Your task to perform on an android device: open app "LinkedIn" (install if not already installed) and enter user name: "dirt@inbox.com" and password: "receptionist" Image 0: 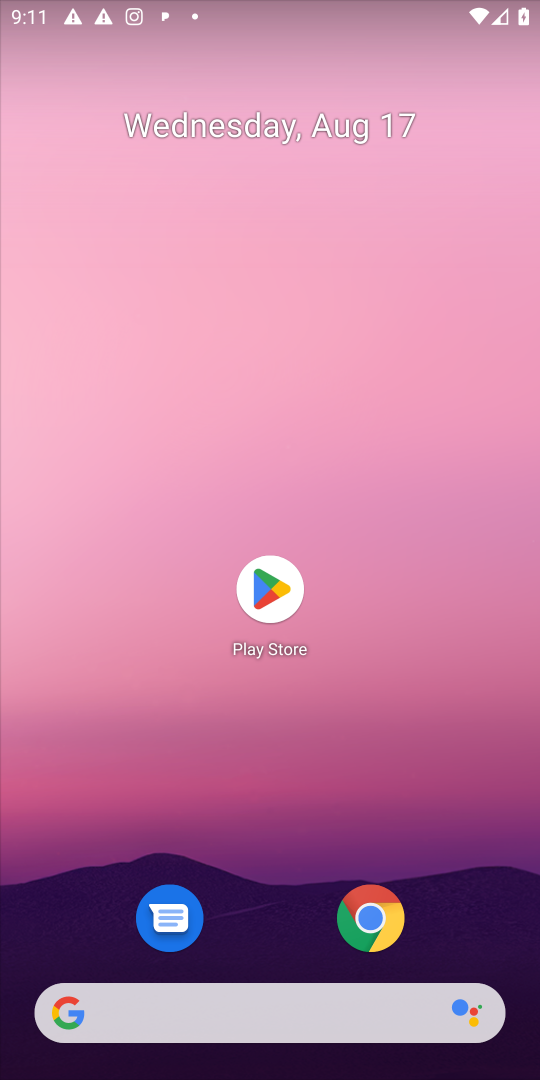
Step 0: click (259, 598)
Your task to perform on an android device: open app "LinkedIn" (install if not already installed) and enter user name: "dirt@inbox.com" and password: "receptionist" Image 1: 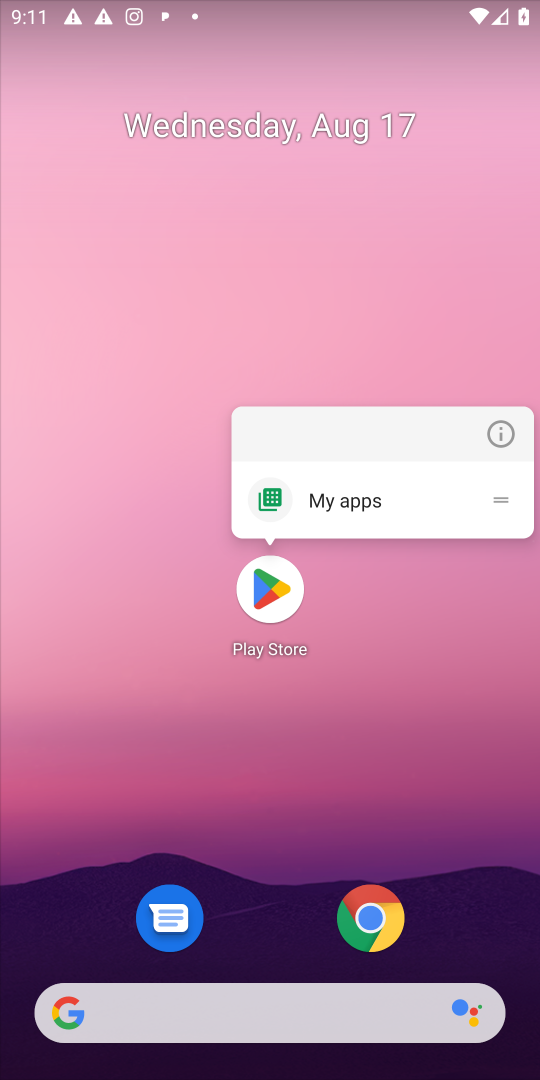
Step 1: click (276, 582)
Your task to perform on an android device: open app "LinkedIn" (install if not already installed) and enter user name: "dirt@inbox.com" and password: "receptionist" Image 2: 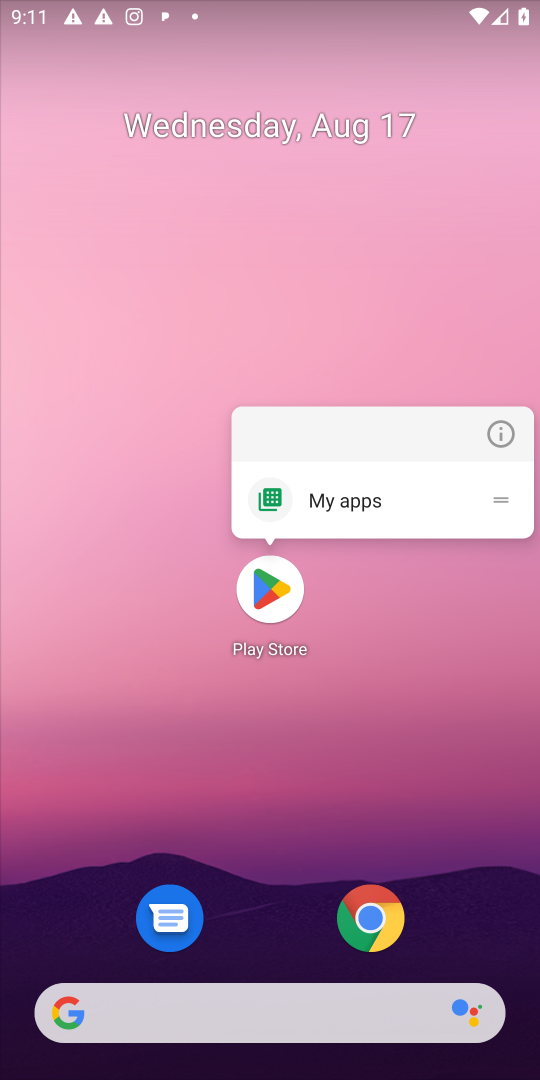
Step 2: click (276, 588)
Your task to perform on an android device: open app "LinkedIn" (install if not already installed) and enter user name: "dirt@inbox.com" and password: "receptionist" Image 3: 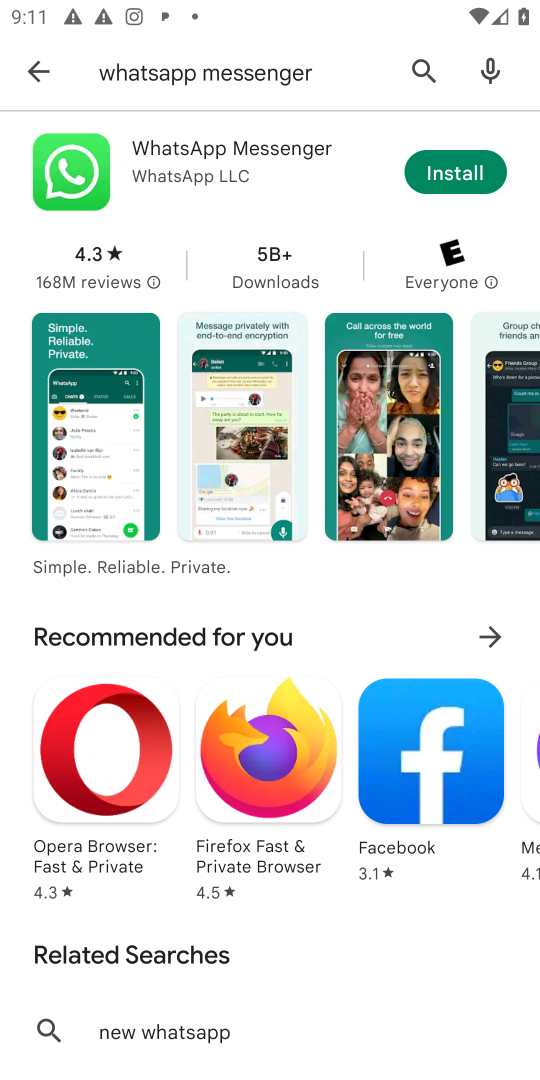
Step 3: click (425, 66)
Your task to perform on an android device: open app "LinkedIn" (install if not already installed) and enter user name: "dirt@inbox.com" and password: "receptionist" Image 4: 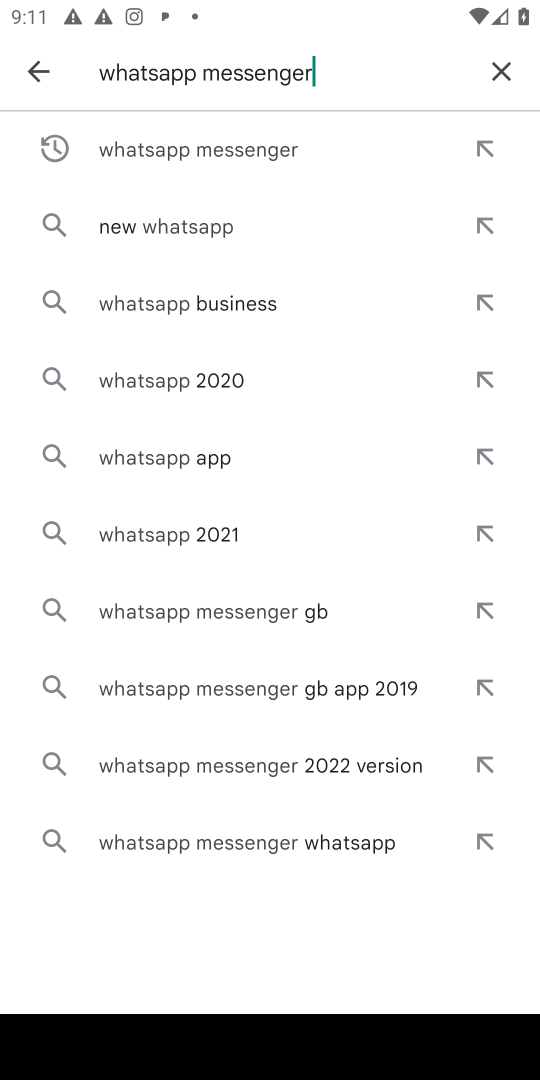
Step 4: click (506, 71)
Your task to perform on an android device: open app "LinkedIn" (install if not already installed) and enter user name: "dirt@inbox.com" and password: "receptionist" Image 5: 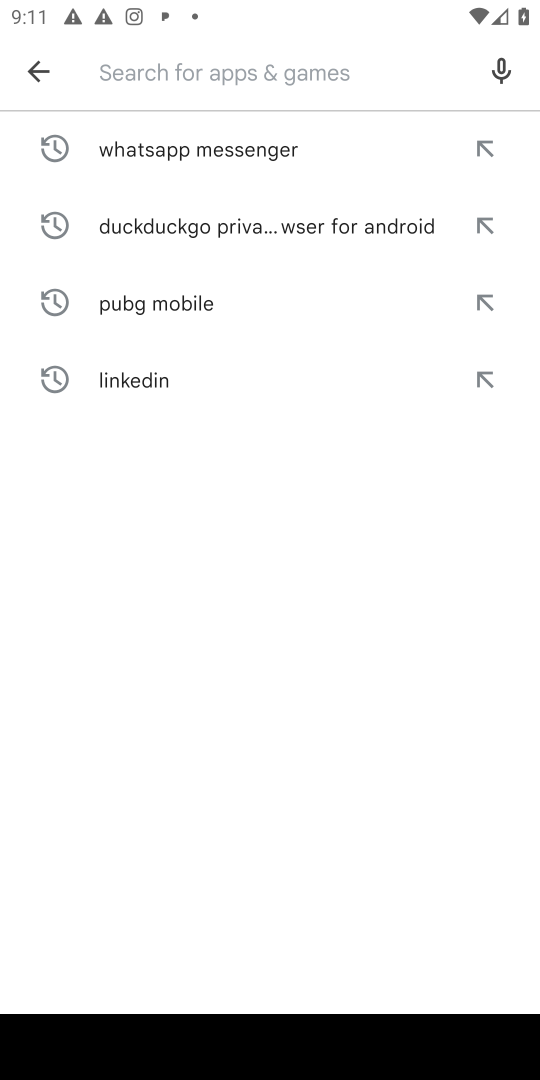
Step 5: type "LinkedIn"
Your task to perform on an android device: open app "LinkedIn" (install if not already installed) and enter user name: "dirt@inbox.com" and password: "receptionist" Image 6: 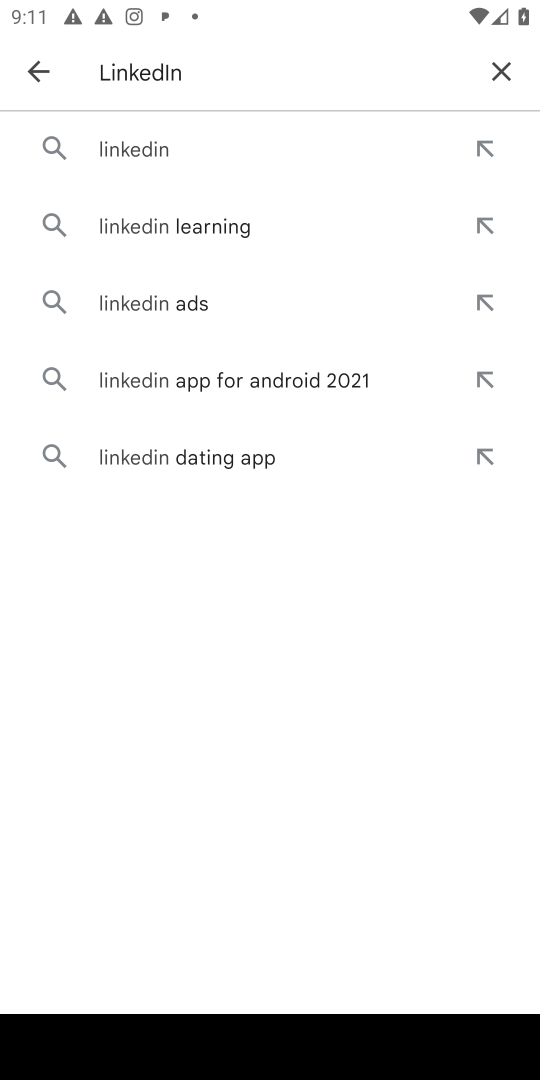
Step 6: click (160, 142)
Your task to perform on an android device: open app "LinkedIn" (install if not already installed) and enter user name: "dirt@inbox.com" and password: "receptionist" Image 7: 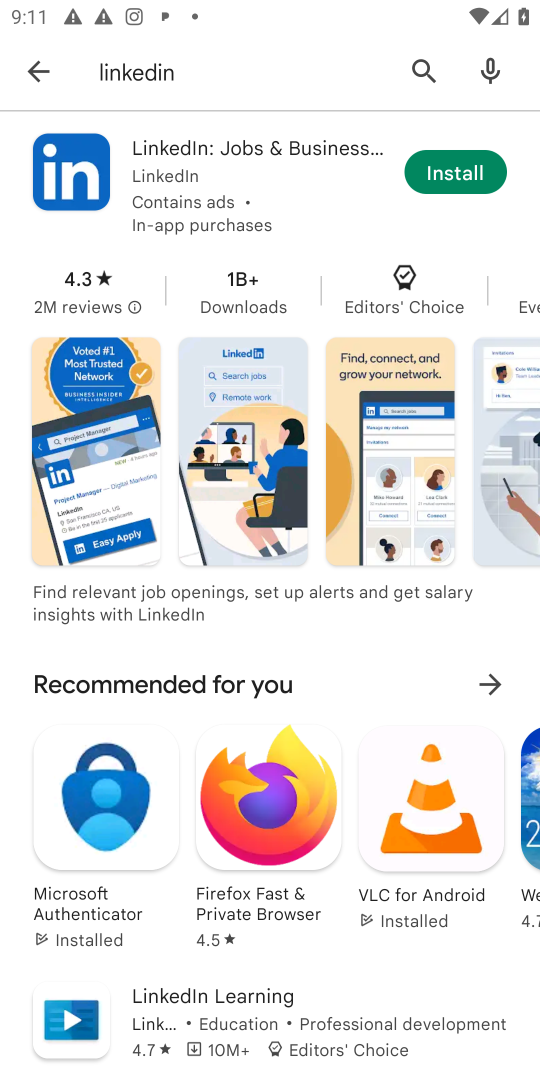
Step 7: click (443, 184)
Your task to perform on an android device: open app "LinkedIn" (install if not already installed) and enter user name: "dirt@inbox.com" and password: "receptionist" Image 8: 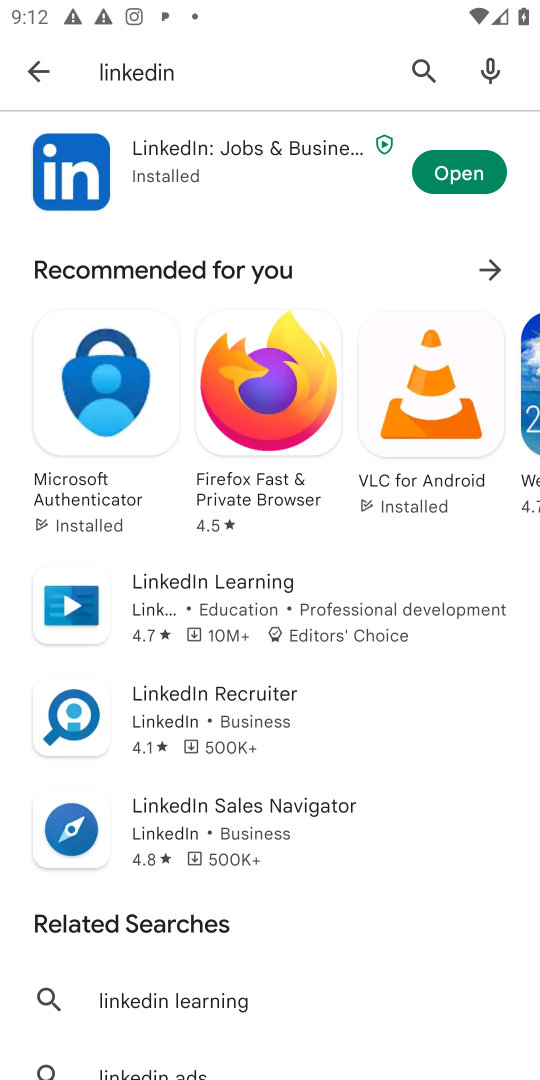
Step 8: click (455, 171)
Your task to perform on an android device: open app "LinkedIn" (install if not already installed) and enter user name: "dirt@inbox.com" and password: "receptionist" Image 9: 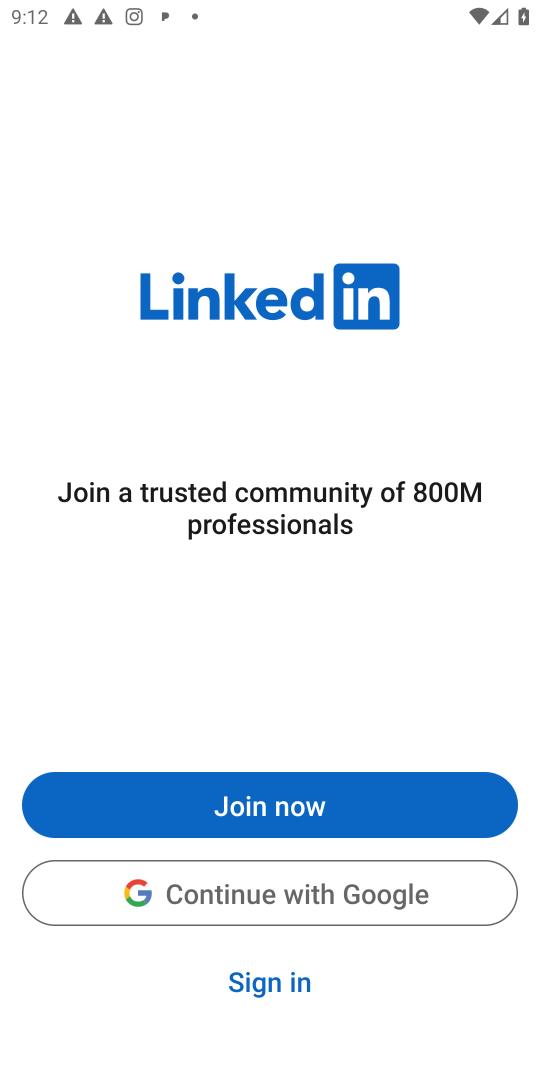
Step 9: click (285, 984)
Your task to perform on an android device: open app "LinkedIn" (install if not already installed) and enter user name: "dirt@inbox.com" and password: "receptionist" Image 10: 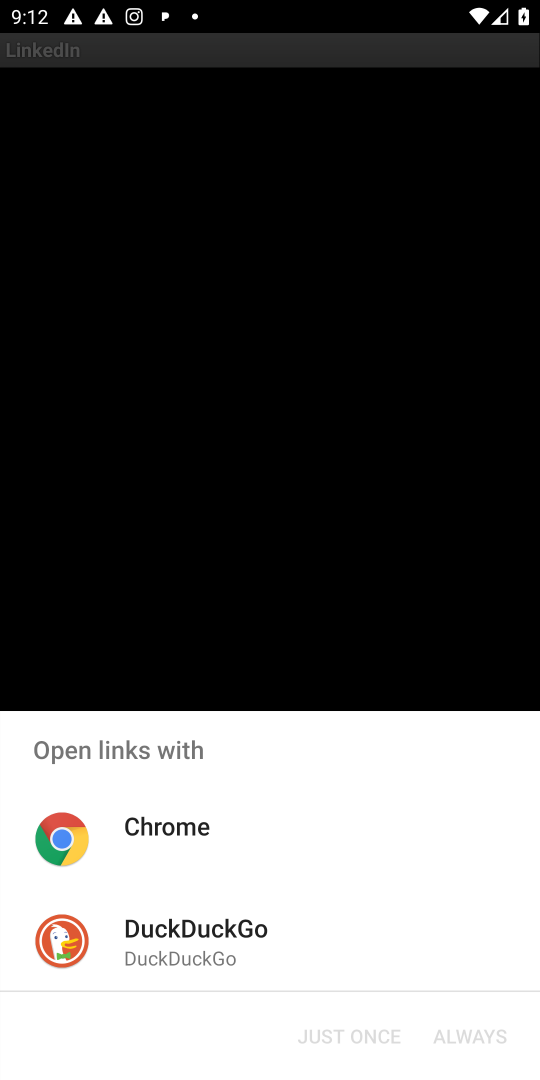
Step 10: click (142, 821)
Your task to perform on an android device: open app "LinkedIn" (install if not already installed) and enter user name: "dirt@inbox.com" and password: "receptionist" Image 11: 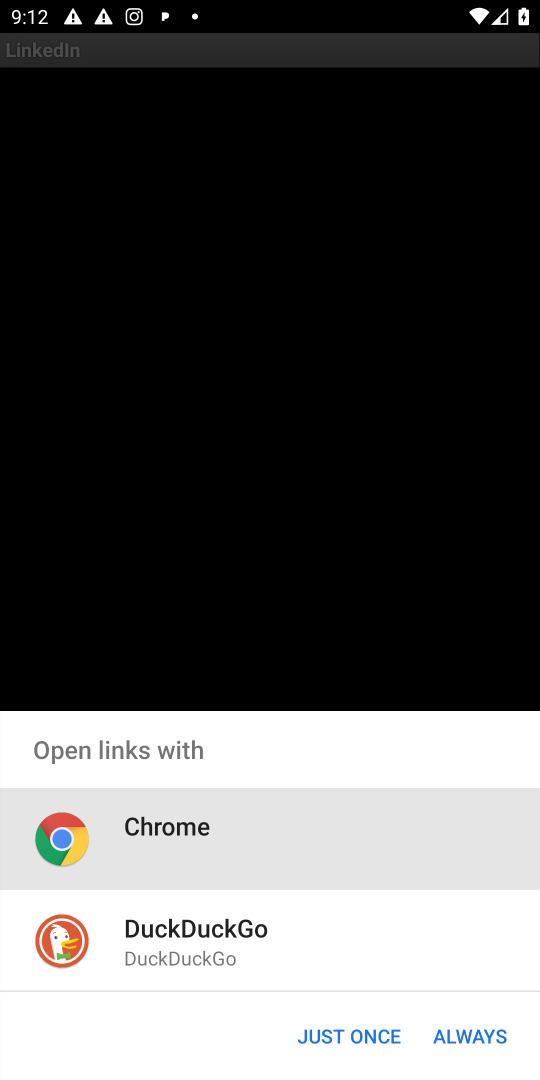
Step 11: click (445, 1035)
Your task to perform on an android device: open app "LinkedIn" (install if not already installed) and enter user name: "dirt@inbox.com" and password: "receptionist" Image 12: 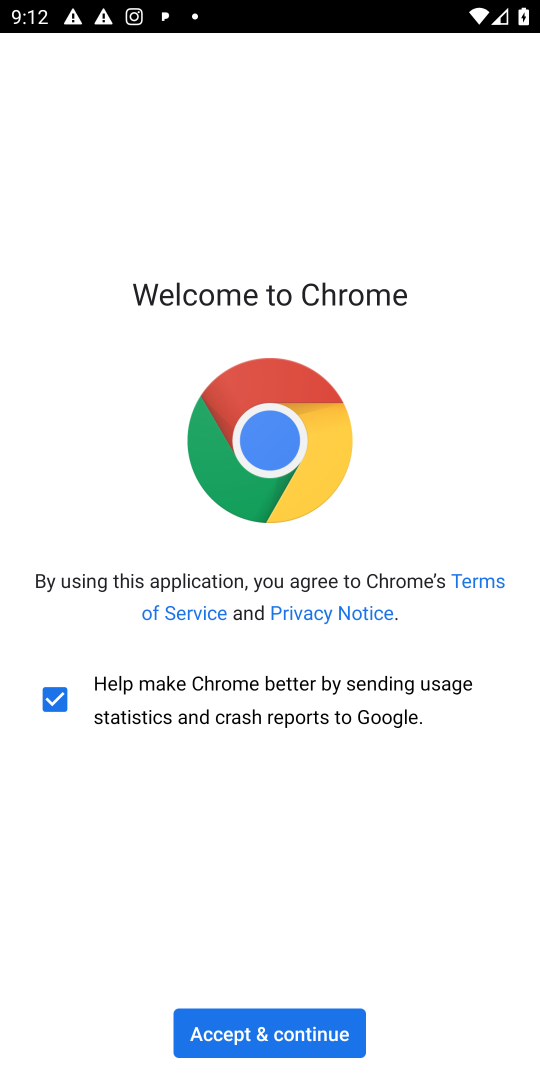
Step 12: press home button
Your task to perform on an android device: open app "LinkedIn" (install if not already installed) and enter user name: "dirt@inbox.com" and password: "receptionist" Image 13: 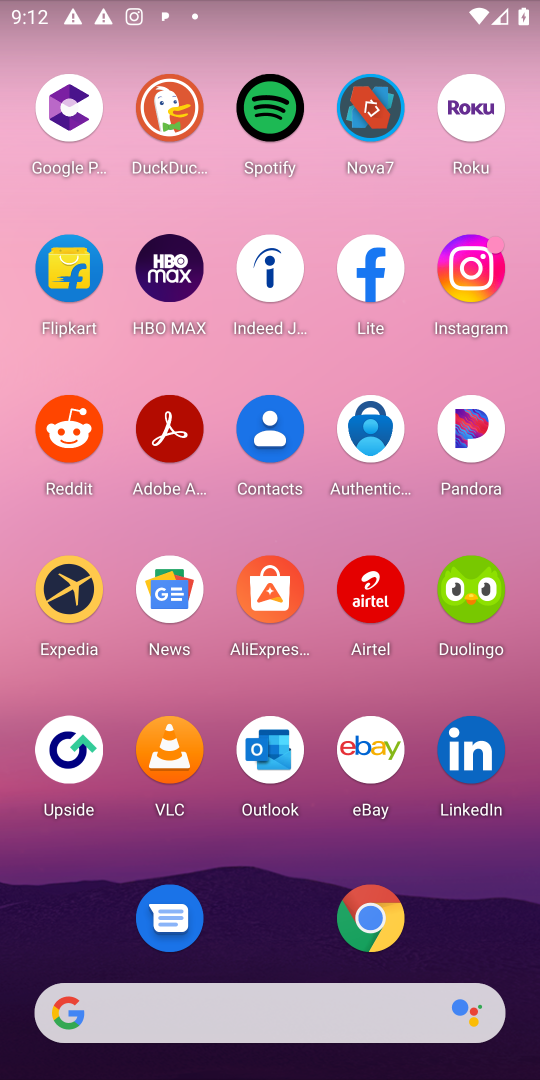
Step 13: click (482, 749)
Your task to perform on an android device: open app "LinkedIn" (install if not already installed) and enter user name: "dirt@inbox.com" and password: "receptionist" Image 14: 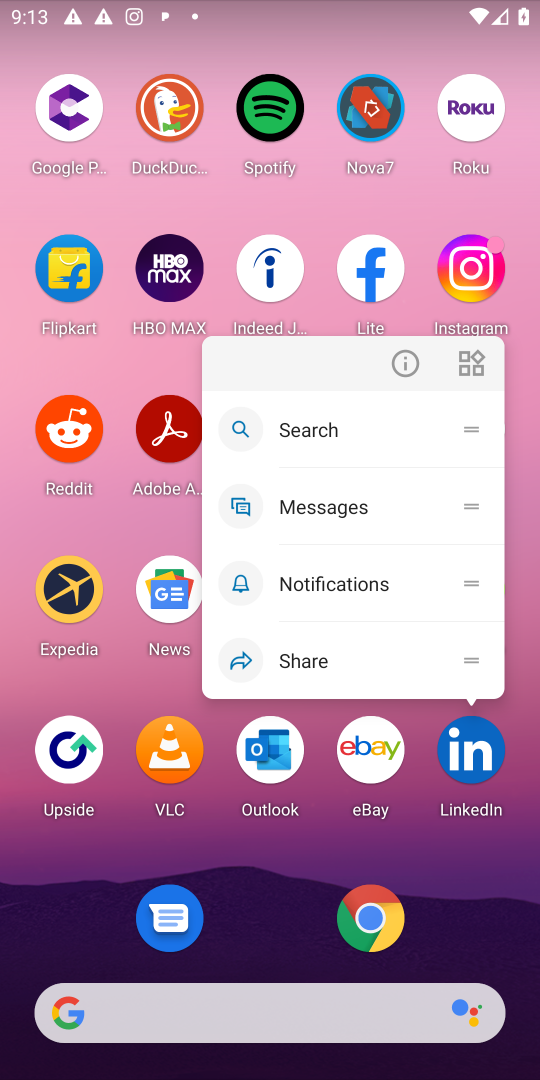
Step 14: click (464, 755)
Your task to perform on an android device: open app "LinkedIn" (install if not already installed) and enter user name: "dirt@inbox.com" and password: "receptionist" Image 15: 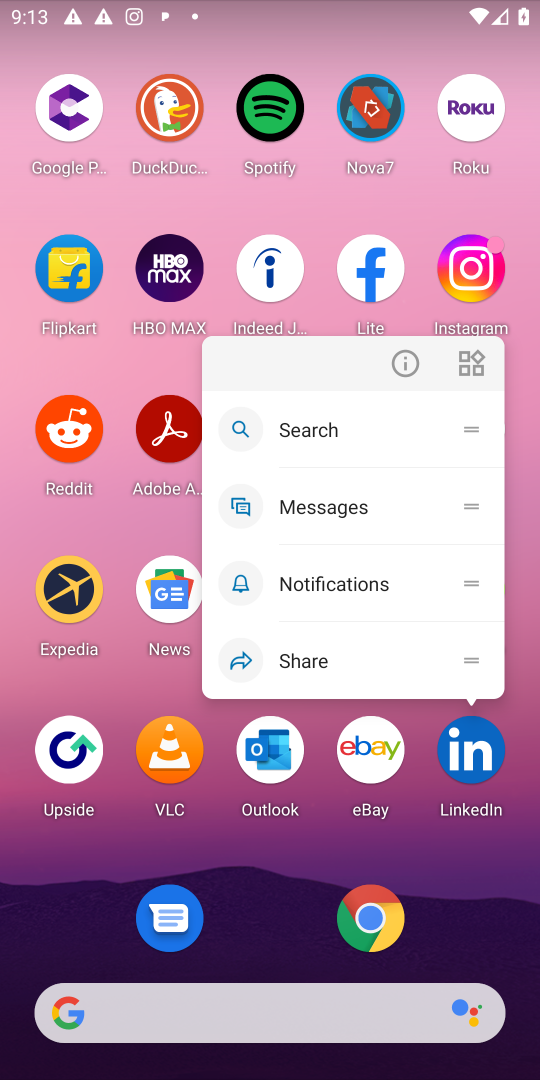
Step 15: click (464, 756)
Your task to perform on an android device: open app "LinkedIn" (install if not already installed) and enter user name: "dirt@inbox.com" and password: "receptionist" Image 16: 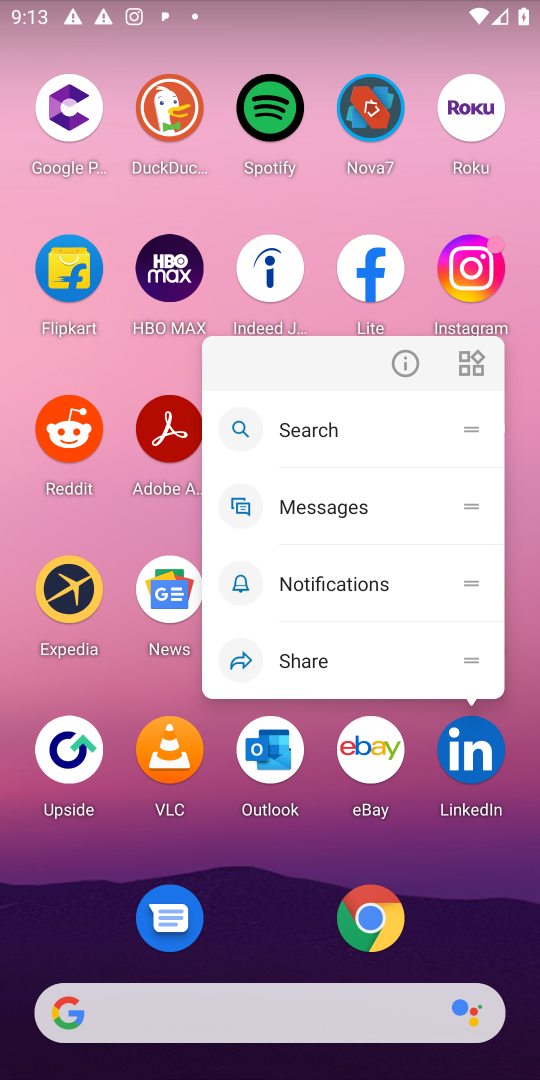
Step 16: click (464, 761)
Your task to perform on an android device: open app "LinkedIn" (install if not already installed) and enter user name: "dirt@inbox.com" and password: "receptionist" Image 17: 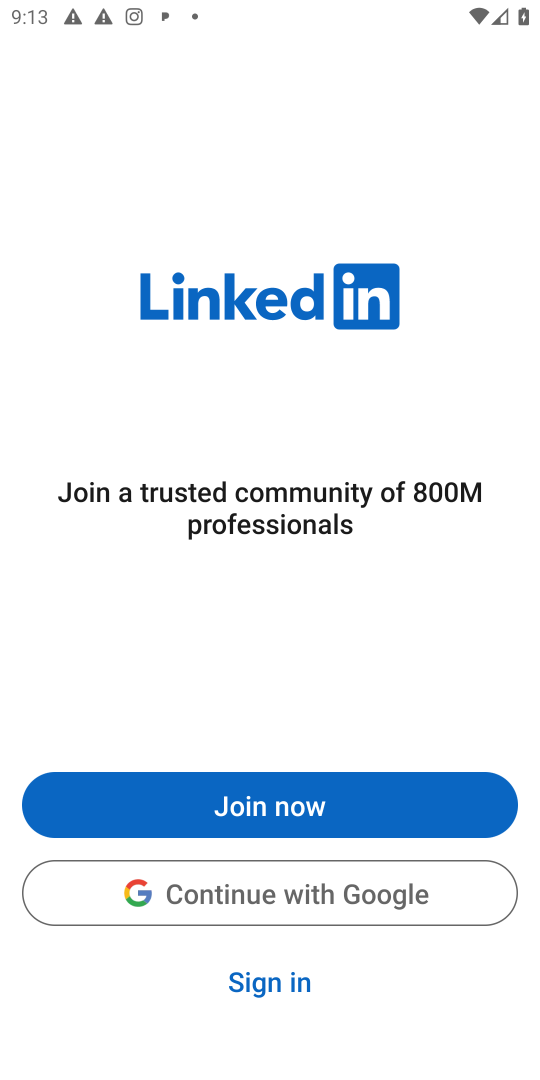
Step 17: click (274, 972)
Your task to perform on an android device: open app "LinkedIn" (install if not already installed) and enter user name: "dirt@inbox.com" and password: "receptionist" Image 18: 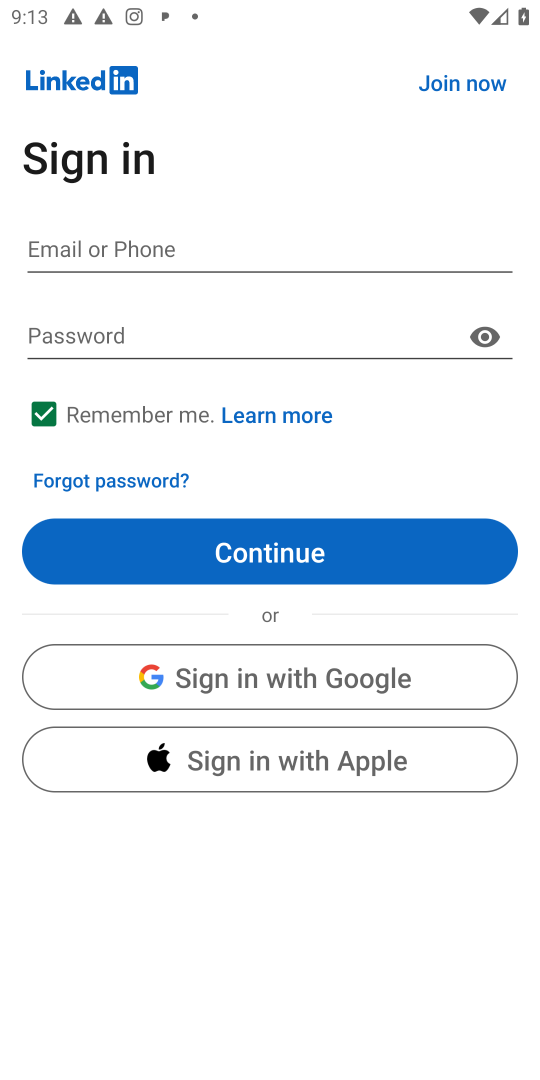
Step 18: click (146, 245)
Your task to perform on an android device: open app "LinkedIn" (install if not already installed) and enter user name: "dirt@inbox.com" and password: "receptionist" Image 19: 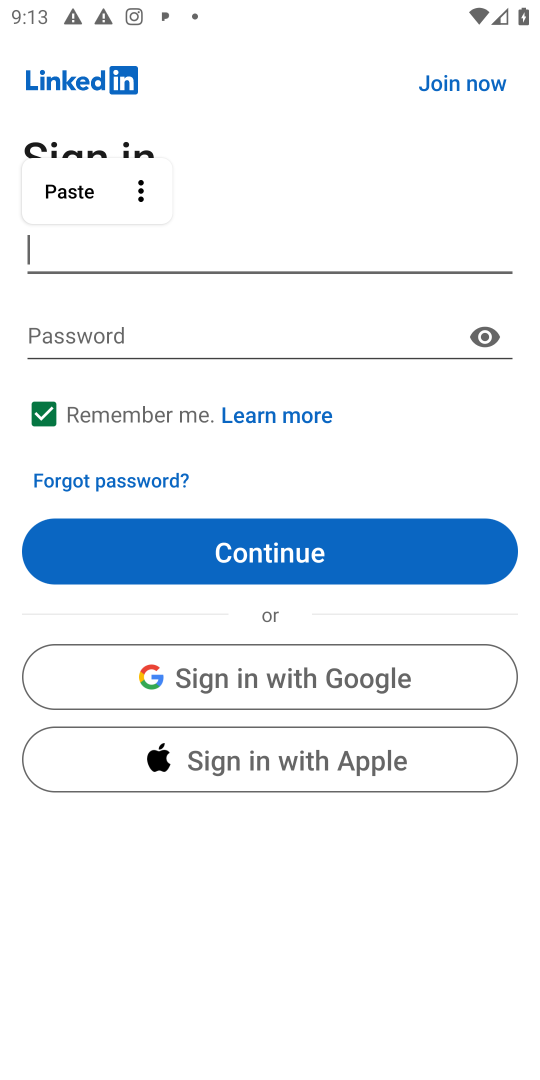
Step 19: type "dirt@inbox.com"
Your task to perform on an android device: open app "LinkedIn" (install if not already installed) and enter user name: "dirt@inbox.com" and password: "receptionist" Image 20: 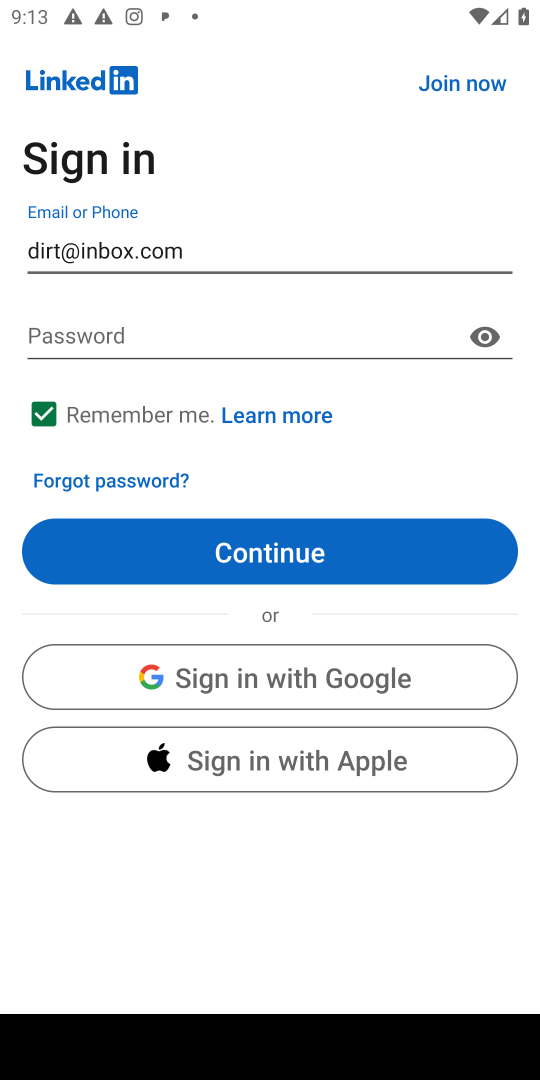
Step 20: click (74, 323)
Your task to perform on an android device: open app "LinkedIn" (install if not already installed) and enter user name: "dirt@inbox.com" and password: "receptionist" Image 21: 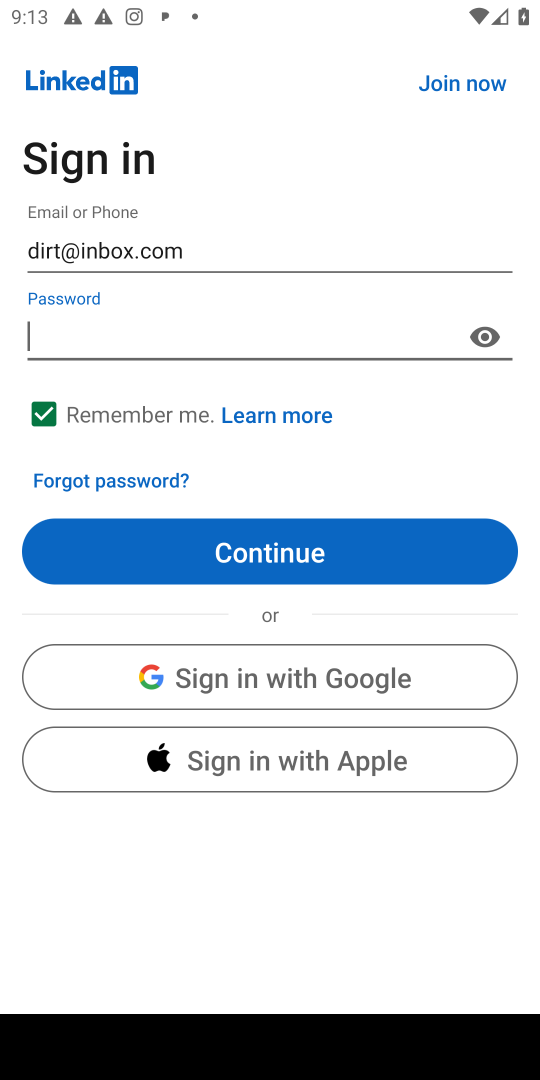
Step 21: type "receptionist"
Your task to perform on an android device: open app "LinkedIn" (install if not already installed) and enter user name: "dirt@inbox.com" and password: "receptionist" Image 22: 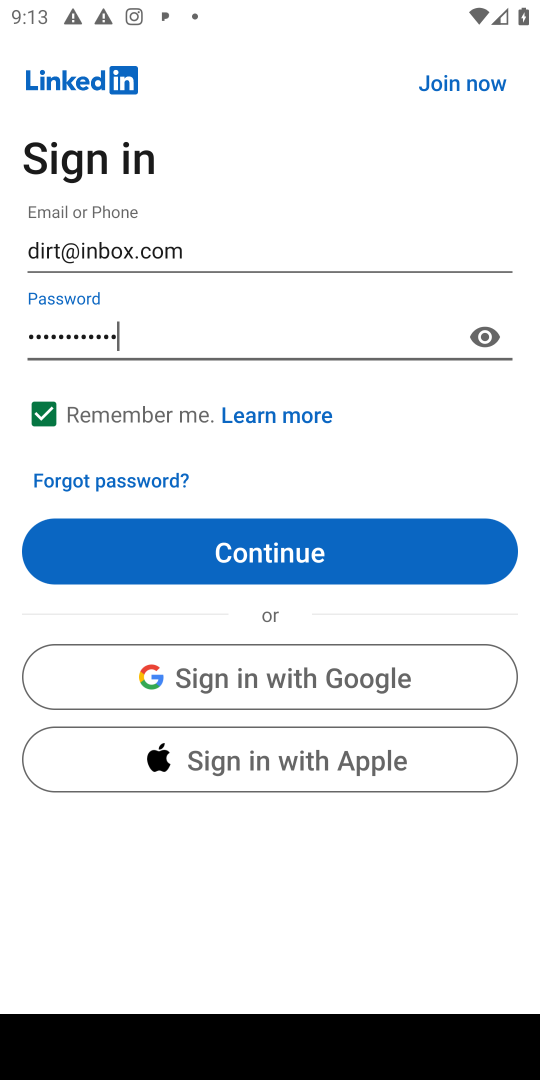
Step 22: task complete